Your task to perform on an android device: Open calendar and show me the third week of next month Image 0: 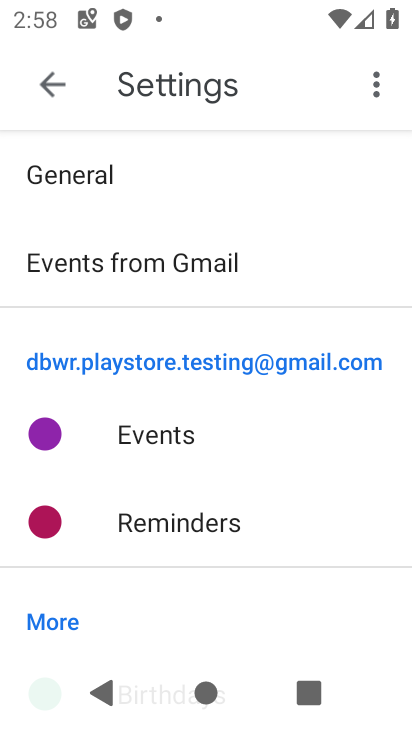
Step 0: press back button
Your task to perform on an android device: Open calendar and show me the third week of next month Image 1: 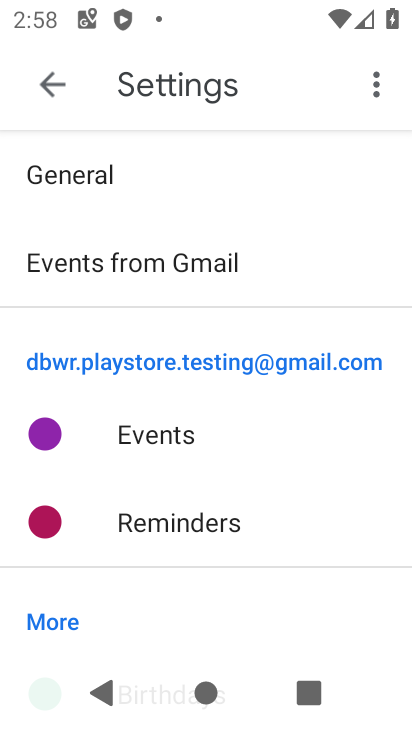
Step 1: press back button
Your task to perform on an android device: Open calendar and show me the third week of next month Image 2: 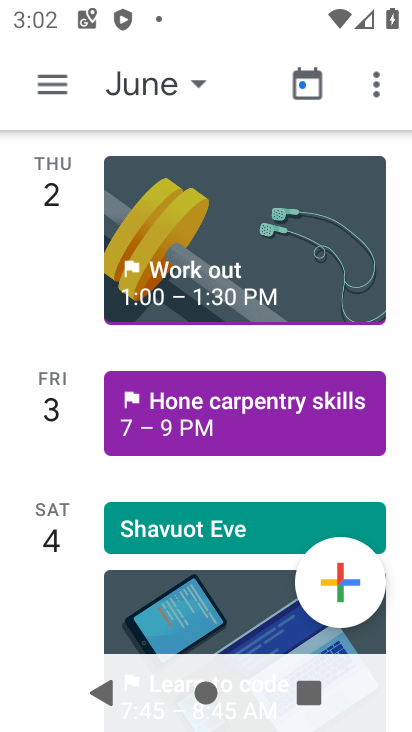
Step 2: click (159, 83)
Your task to perform on an android device: Open calendar and show me the third week of next month Image 3: 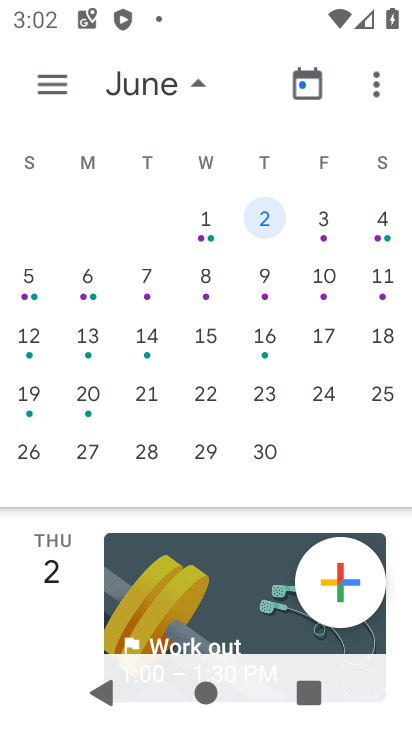
Step 3: click (87, 397)
Your task to perform on an android device: Open calendar and show me the third week of next month Image 4: 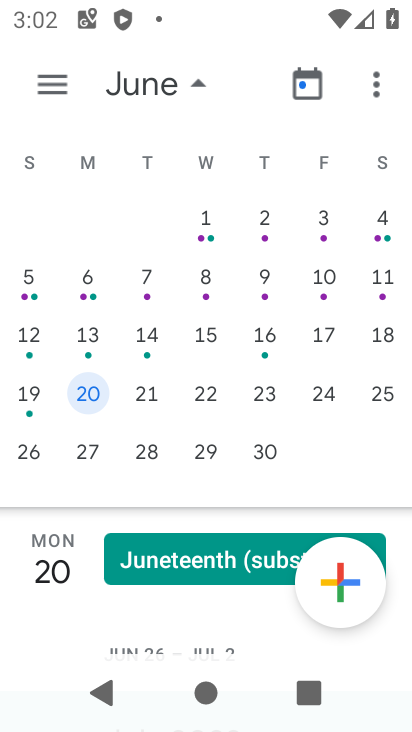
Step 4: click (97, 333)
Your task to perform on an android device: Open calendar and show me the third week of next month Image 5: 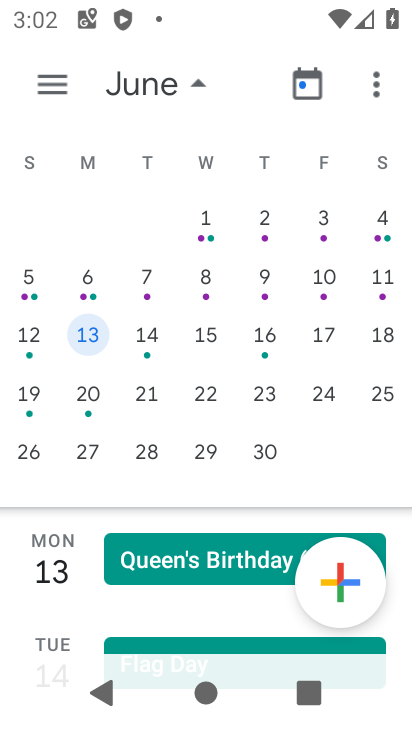
Step 5: task complete